Your task to perform on an android device: What's on my calendar today? Image 0: 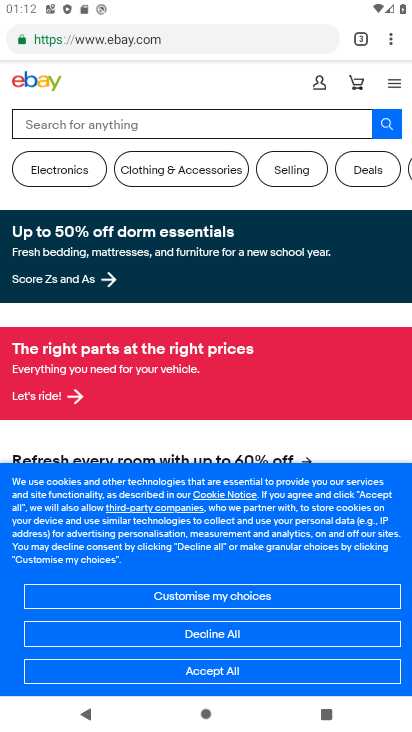
Step 0: press home button
Your task to perform on an android device: What's on my calendar today? Image 1: 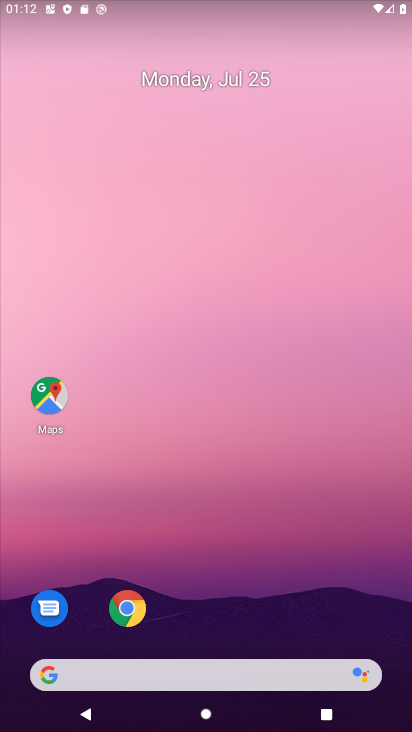
Step 1: drag from (233, 637) to (251, 57)
Your task to perform on an android device: What's on my calendar today? Image 2: 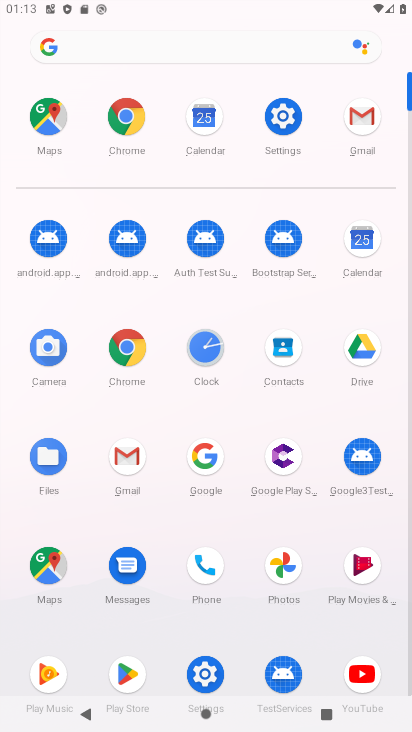
Step 2: click (367, 246)
Your task to perform on an android device: What's on my calendar today? Image 3: 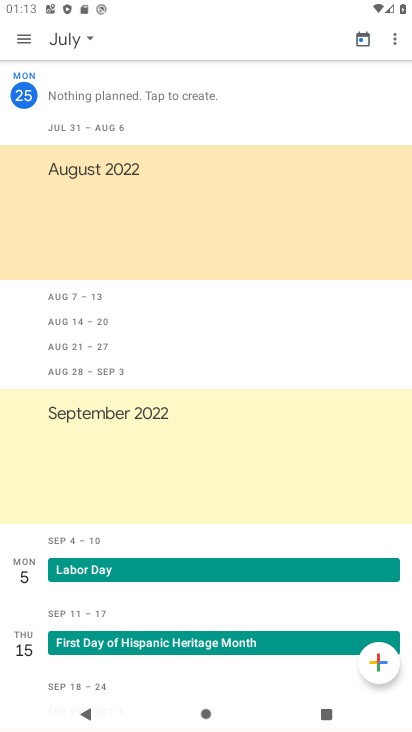
Step 3: click (33, 92)
Your task to perform on an android device: What's on my calendar today? Image 4: 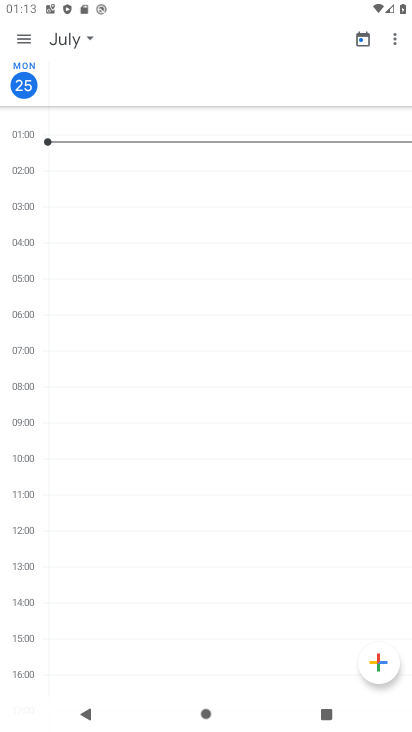
Step 4: task complete